Your task to perform on an android device: Open calendar and show me the fourth week of next month Image 0: 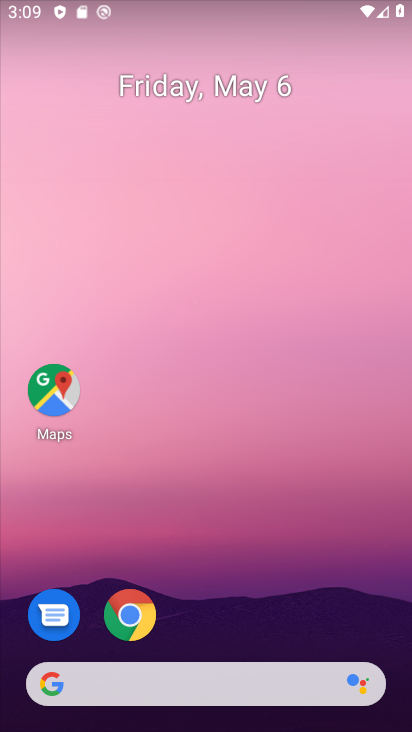
Step 0: drag from (271, 455) to (273, 77)
Your task to perform on an android device: Open calendar and show me the fourth week of next month Image 1: 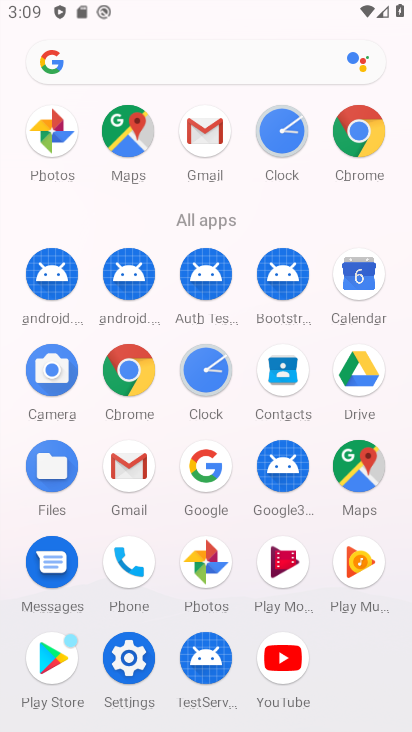
Step 1: click (354, 269)
Your task to perform on an android device: Open calendar and show me the fourth week of next month Image 2: 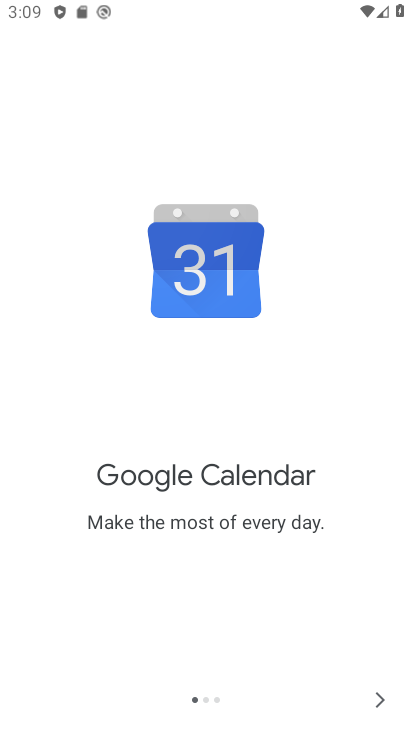
Step 2: click (385, 693)
Your task to perform on an android device: Open calendar and show me the fourth week of next month Image 3: 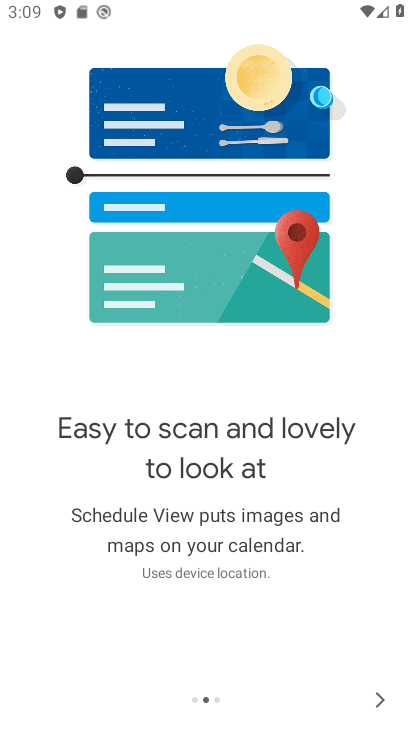
Step 3: click (385, 693)
Your task to perform on an android device: Open calendar and show me the fourth week of next month Image 4: 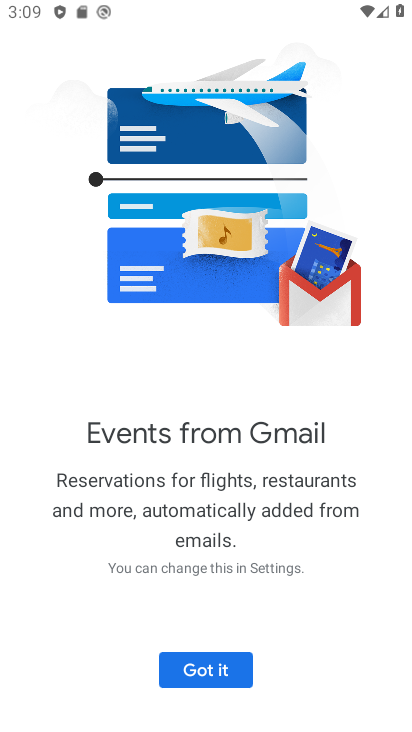
Step 4: click (196, 668)
Your task to perform on an android device: Open calendar and show me the fourth week of next month Image 5: 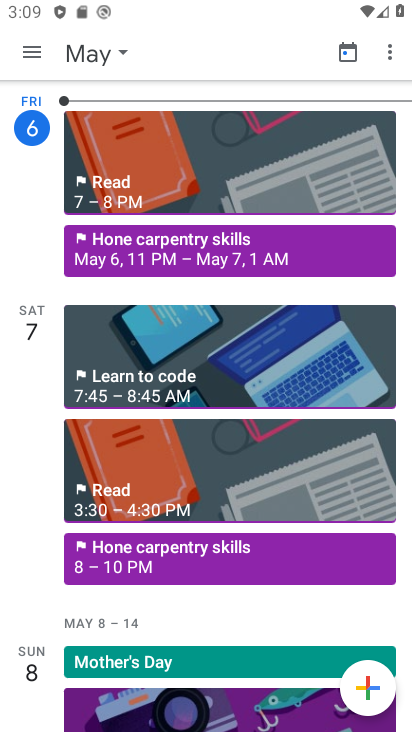
Step 5: click (29, 46)
Your task to perform on an android device: Open calendar and show me the fourth week of next month Image 6: 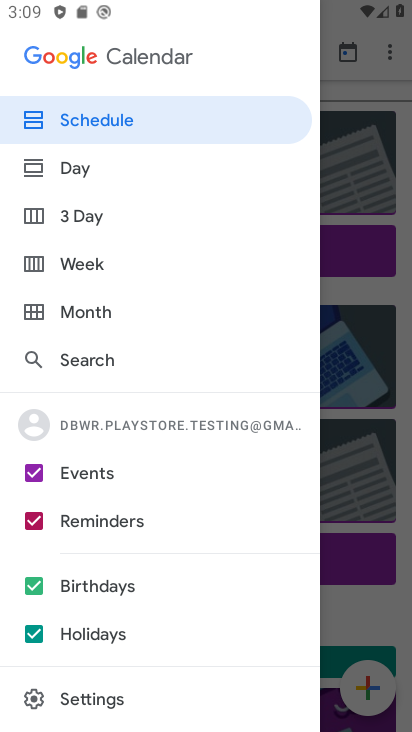
Step 6: click (352, 72)
Your task to perform on an android device: Open calendar and show me the fourth week of next month Image 7: 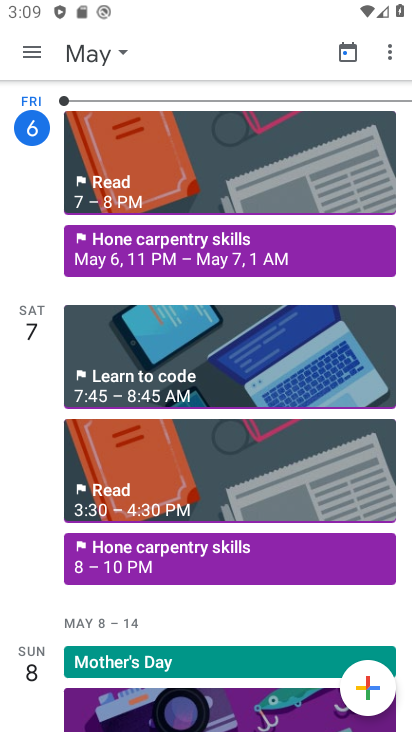
Step 7: click (68, 57)
Your task to perform on an android device: Open calendar and show me the fourth week of next month Image 8: 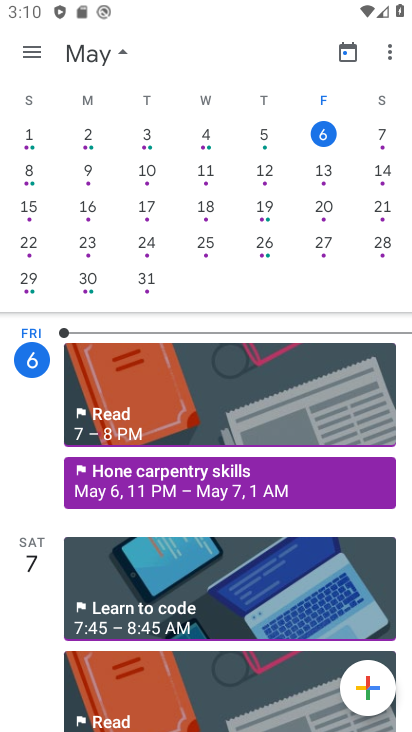
Step 8: click (262, 242)
Your task to perform on an android device: Open calendar and show me the fourth week of next month Image 9: 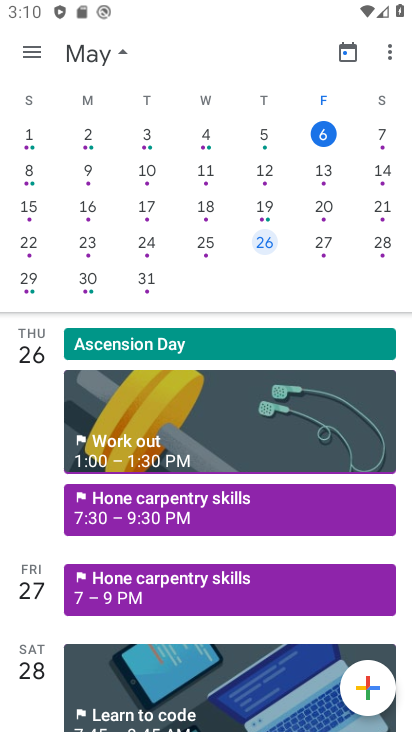
Step 9: task complete